Your task to perform on an android device: Open Chrome and go to the settings page Image 0: 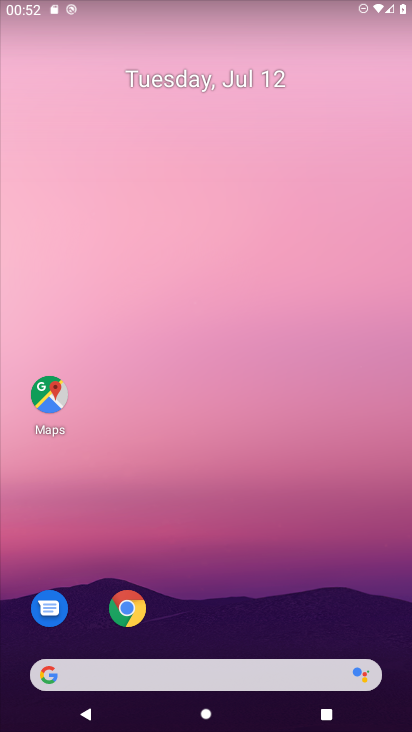
Step 0: click (139, 618)
Your task to perform on an android device: Open Chrome and go to the settings page Image 1: 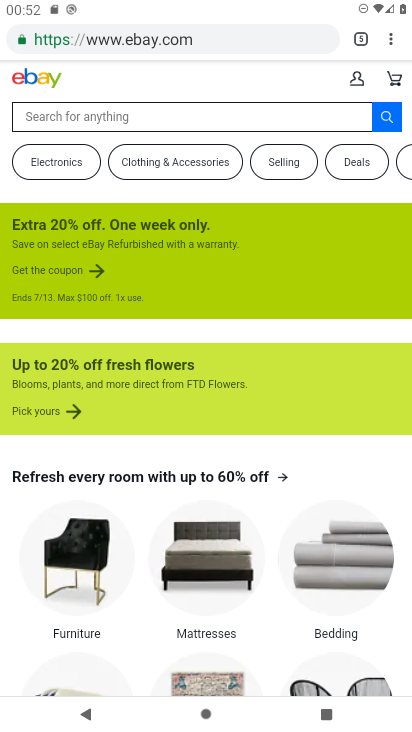
Step 1: task complete